Your task to perform on an android device: allow cookies in the chrome app Image 0: 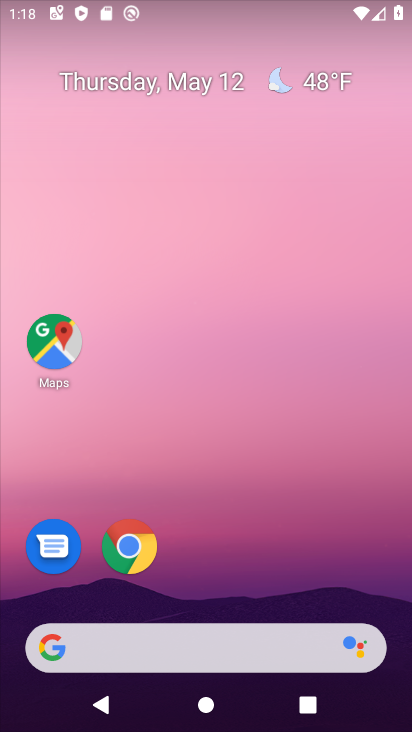
Step 0: drag from (197, 650) to (354, 139)
Your task to perform on an android device: allow cookies in the chrome app Image 1: 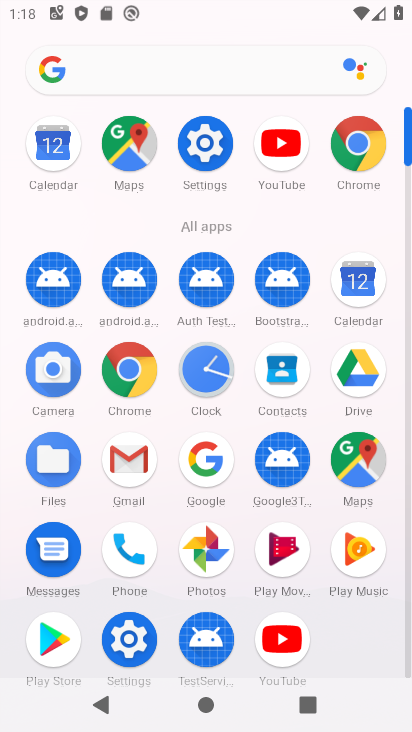
Step 1: click (356, 143)
Your task to perform on an android device: allow cookies in the chrome app Image 2: 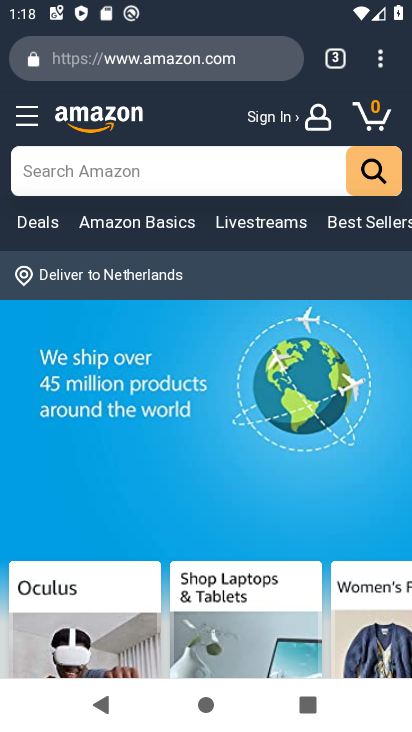
Step 2: drag from (380, 66) to (277, 575)
Your task to perform on an android device: allow cookies in the chrome app Image 3: 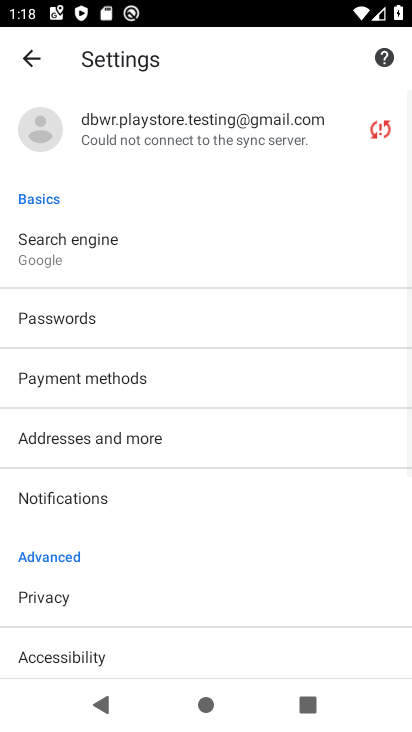
Step 3: drag from (246, 595) to (319, 153)
Your task to perform on an android device: allow cookies in the chrome app Image 4: 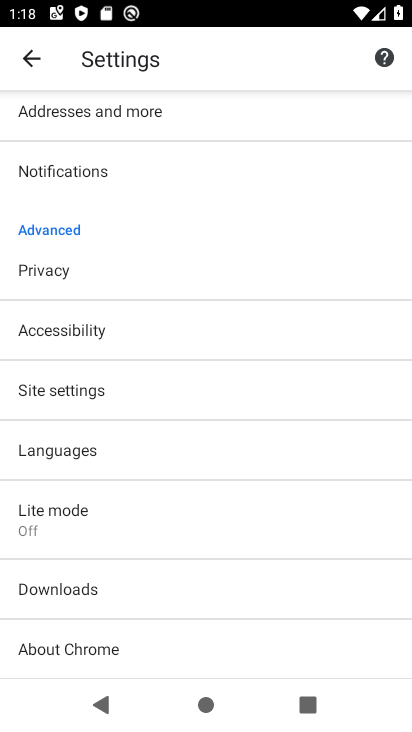
Step 4: click (85, 392)
Your task to perform on an android device: allow cookies in the chrome app Image 5: 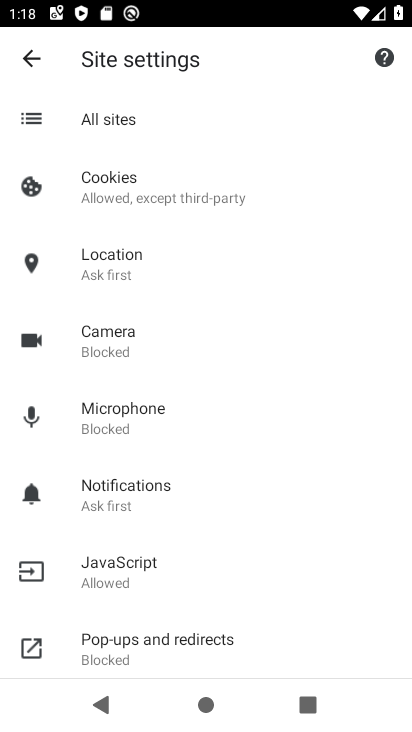
Step 5: click (123, 192)
Your task to perform on an android device: allow cookies in the chrome app Image 6: 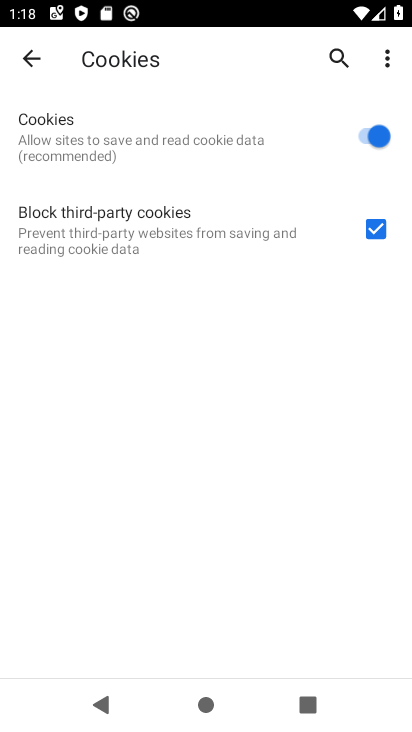
Step 6: task complete